Your task to perform on an android device: Go to wifi settings Image 0: 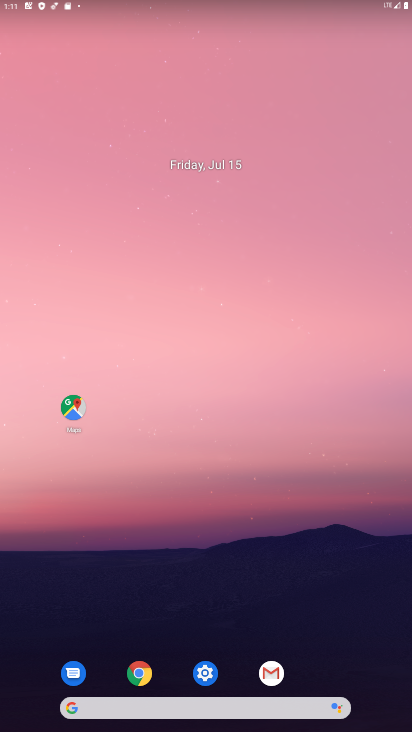
Step 0: press home button
Your task to perform on an android device: Go to wifi settings Image 1: 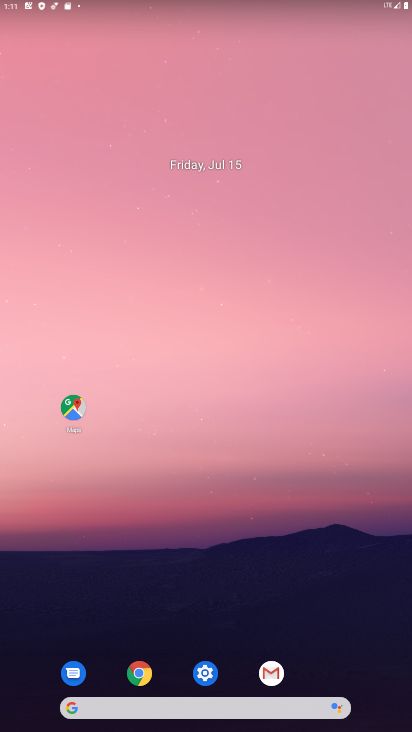
Step 1: click (210, 669)
Your task to perform on an android device: Go to wifi settings Image 2: 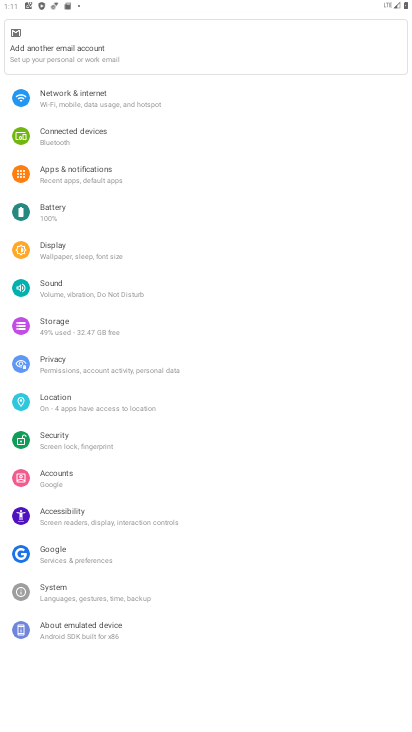
Step 2: click (103, 108)
Your task to perform on an android device: Go to wifi settings Image 3: 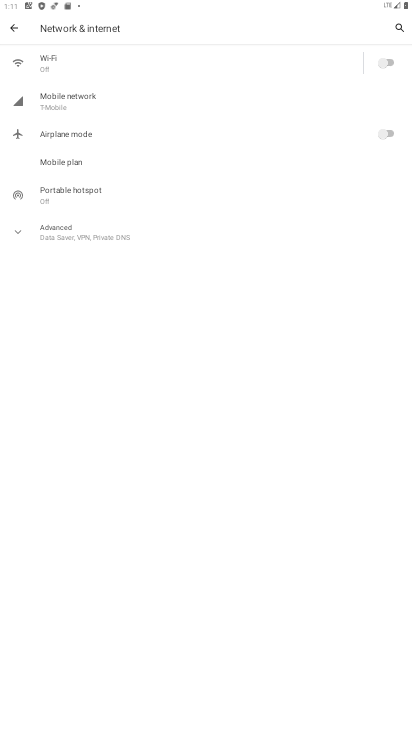
Step 3: click (86, 61)
Your task to perform on an android device: Go to wifi settings Image 4: 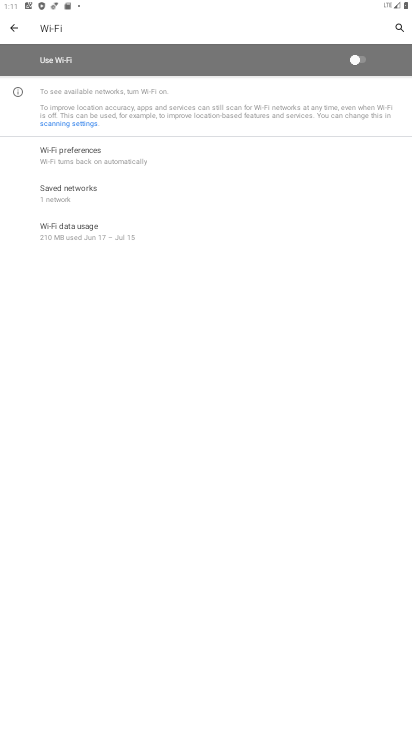
Step 4: click (356, 61)
Your task to perform on an android device: Go to wifi settings Image 5: 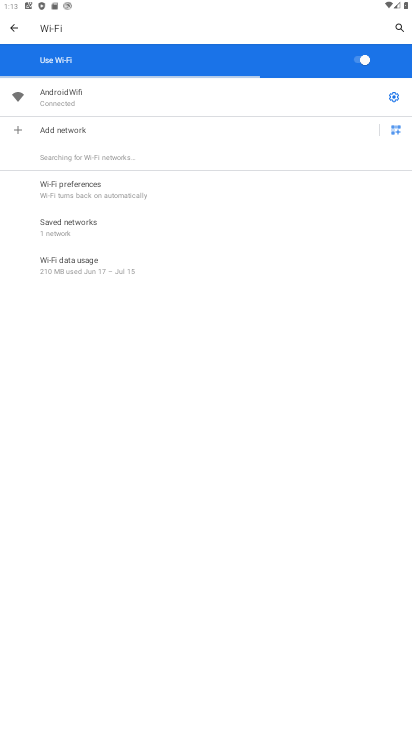
Step 5: task complete